Your task to perform on an android device: Open settings on Google Maps Image 0: 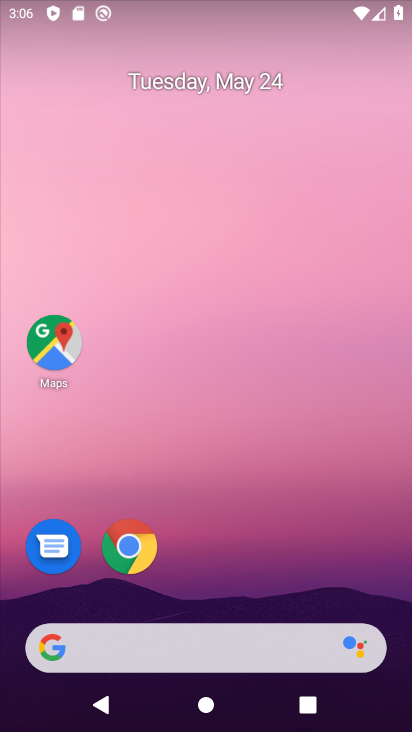
Step 0: drag from (268, 660) to (99, 10)
Your task to perform on an android device: Open settings on Google Maps Image 1: 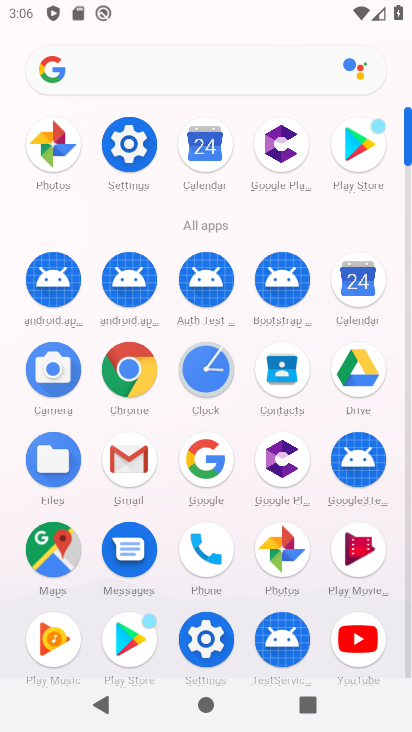
Step 1: click (58, 546)
Your task to perform on an android device: Open settings on Google Maps Image 2: 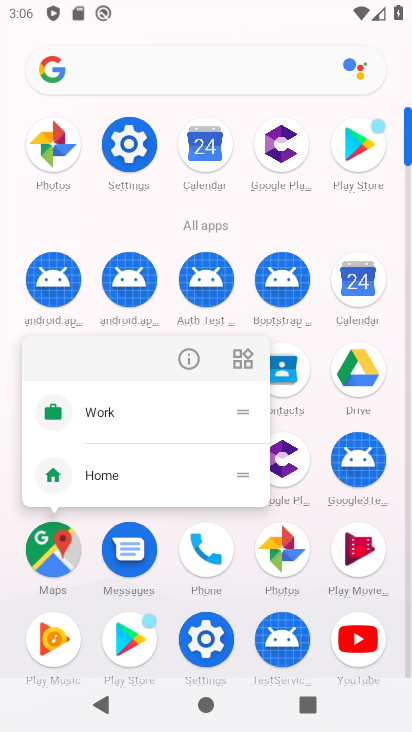
Step 2: click (57, 547)
Your task to perform on an android device: Open settings on Google Maps Image 3: 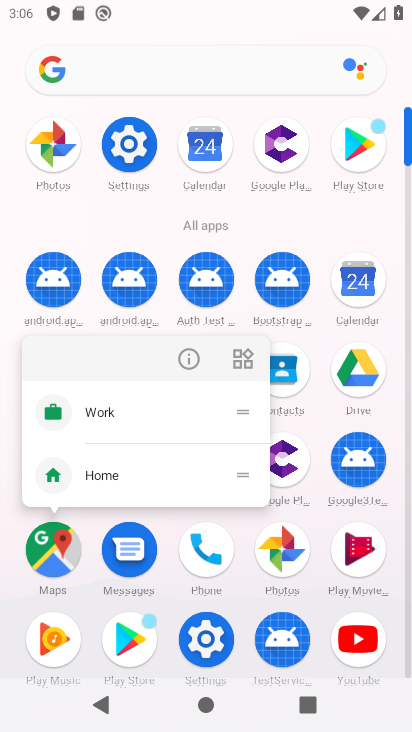
Step 3: click (57, 544)
Your task to perform on an android device: Open settings on Google Maps Image 4: 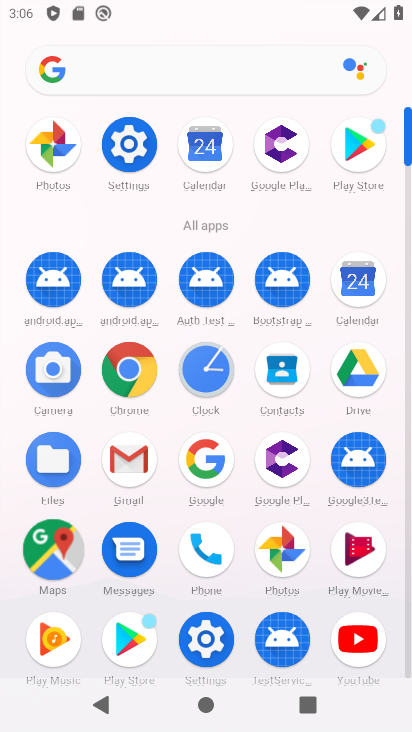
Step 4: click (52, 546)
Your task to perform on an android device: Open settings on Google Maps Image 5: 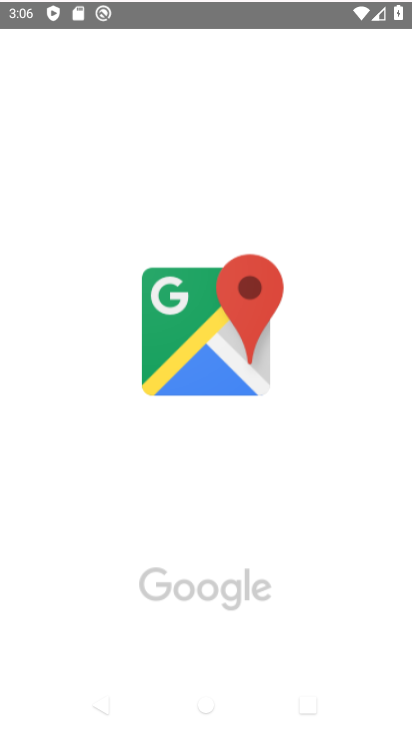
Step 5: click (53, 547)
Your task to perform on an android device: Open settings on Google Maps Image 6: 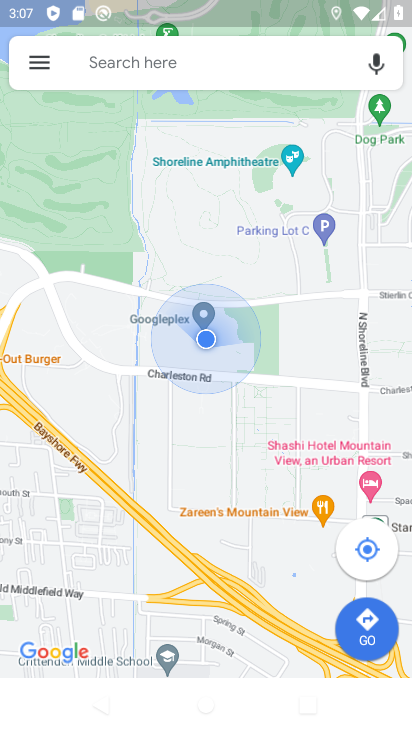
Step 6: click (86, 64)
Your task to perform on an android device: Open settings on Google Maps Image 7: 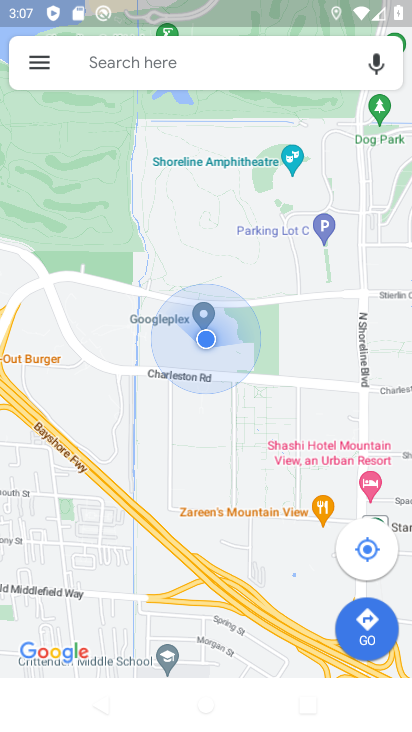
Step 7: click (96, 56)
Your task to perform on an android device: Open settings on Google Maps Image 8: 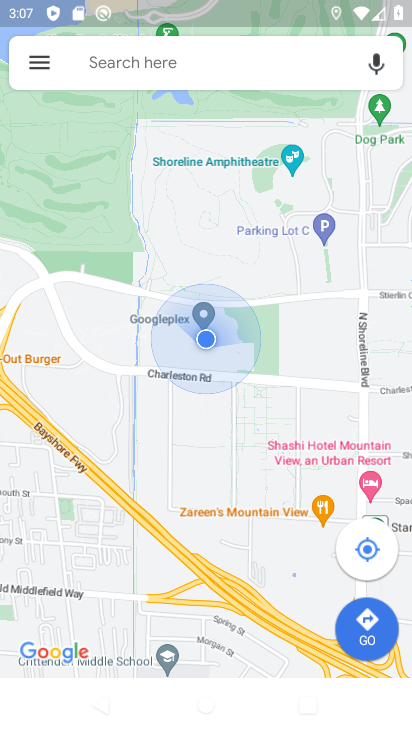
Step 8: click (101, 62)
Your task to perform on an android device: Open settings on Google Maps Image 9: 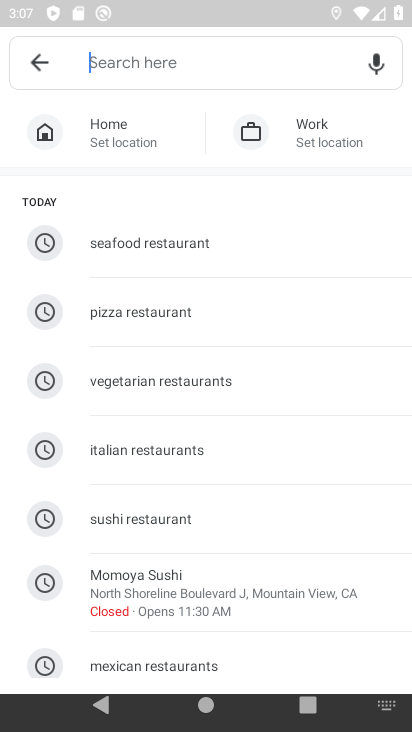
Step 9: click (39, 62)
Your task to perform on an android device: Open settings on Google Maps Image 10: 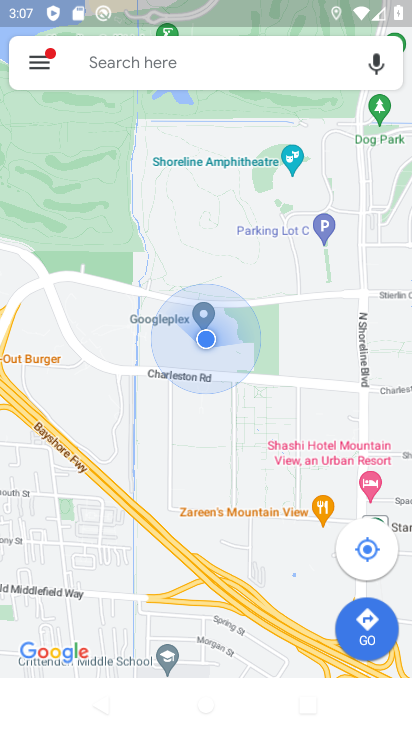
Step 10: click (42, 65)
Your task to perform on an android device: Open settings on Google Maps Image 11: 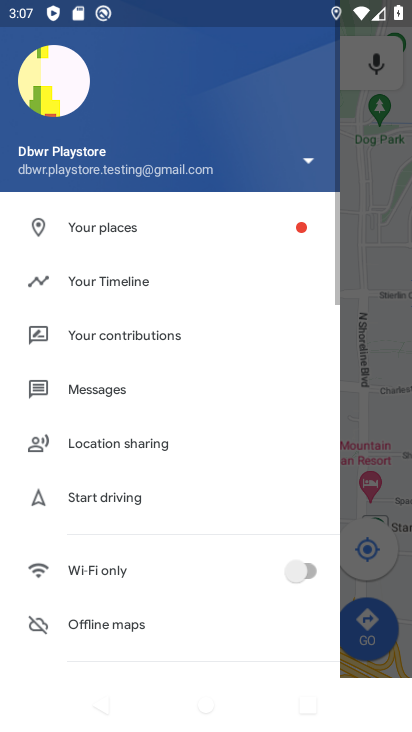
Step 11: click (131, 277)
Your task to perform on an android device: Open settings on Google Maps Image 12: 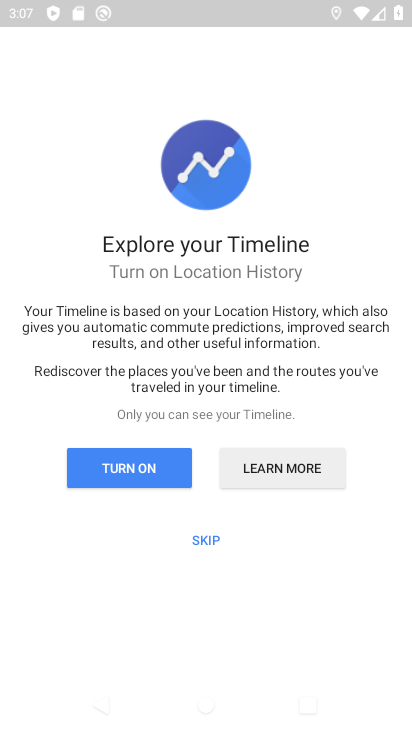
Step 12: click (161, 476)
Your task to perform on an android device: Open settings on Google Maps Image 13: 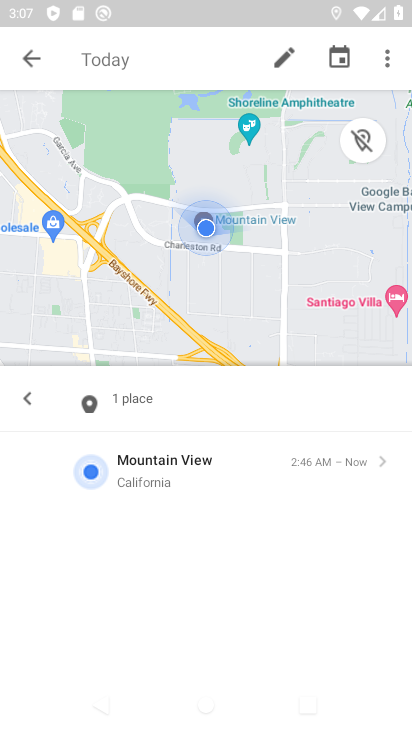
Step 13: click (388, 59)
Your task to perform on an android device: Open settings on Google Maps Image 14: 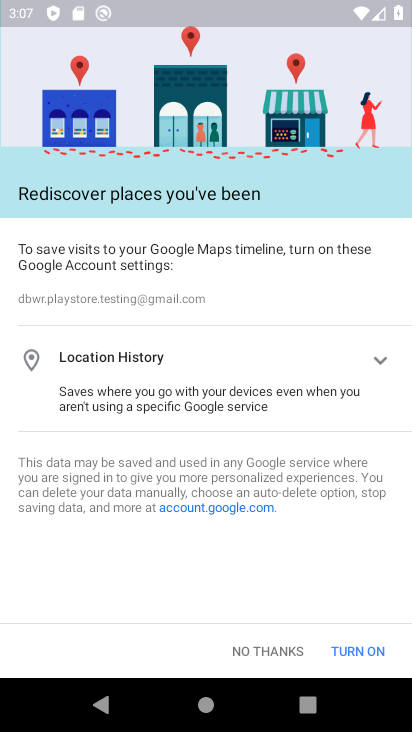
Step 14: click (355, 641)
Your task to perform on an android device: Open settings on Google Maps Image 15: 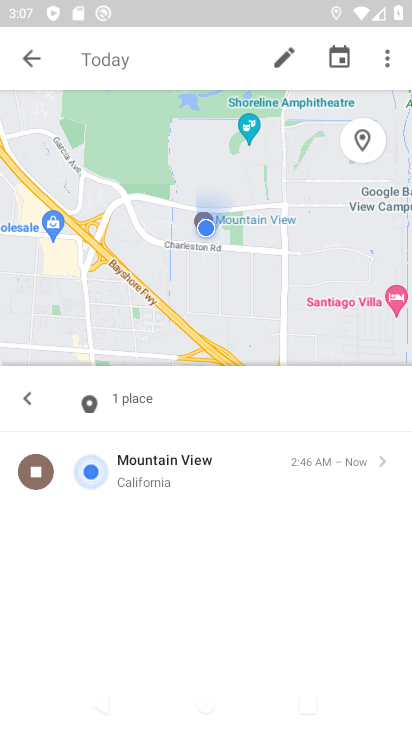
Step 15: drag from (385, 64) to (365, 132)
Your task to perform on an android device: Open settings on Google Maps Image 16: 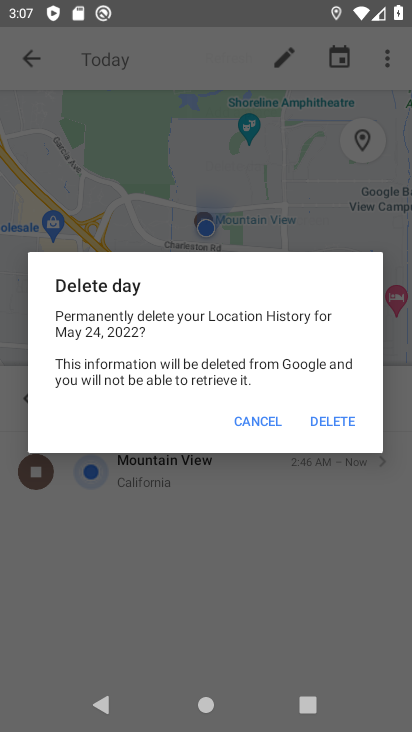
Step 16: click (385, 56)
Your task to perform on an android device: Open settings on Google Maps Image 17: 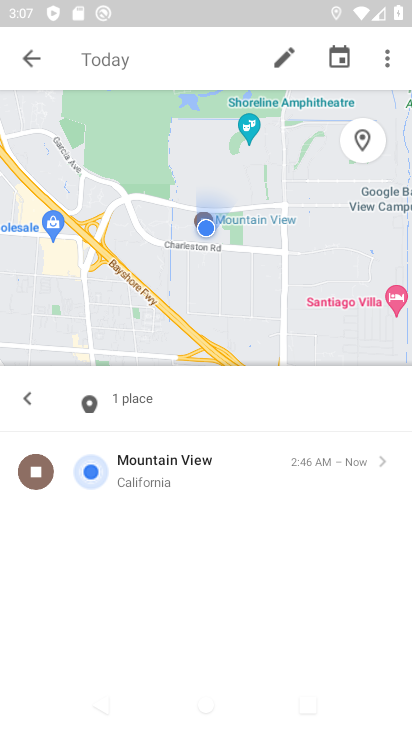
Step 17: click (381, 55)
Your task to perform on an android device: Open settings on Google Maps Image 18: 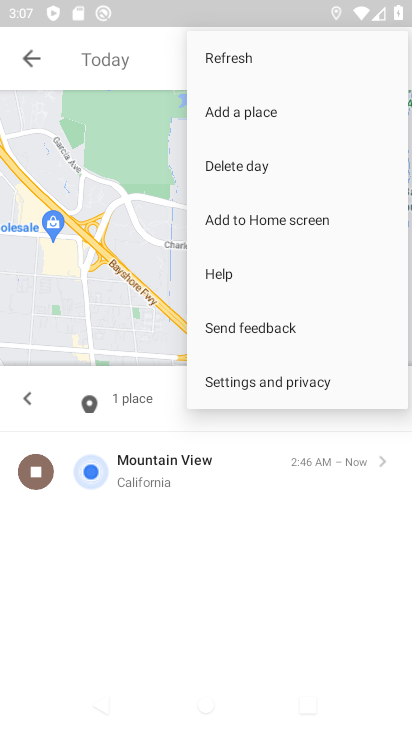
Step 18: click (267, 379)
Your task to perform on an android device: Open settings on Google Maps Image 19: 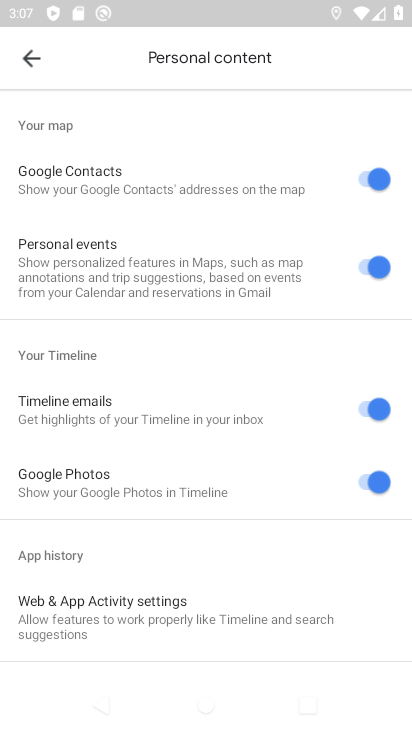
Step 19: task complete